Your task to perform on an android device: Reply to the last email I received with 'Honestly, I didn't care much for the first season, so I didn't bother with the second.' Image 0: 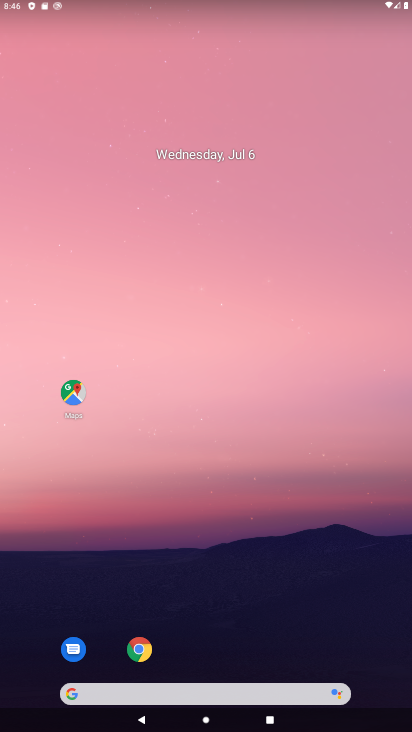
Step 0: drag from (319, 590) to (139, 33)
Your task to perform on an android device: Reply to the last email I received with 'Honestly, I didn't care much for the first season, so I didn't bother with the second.' Image 1: 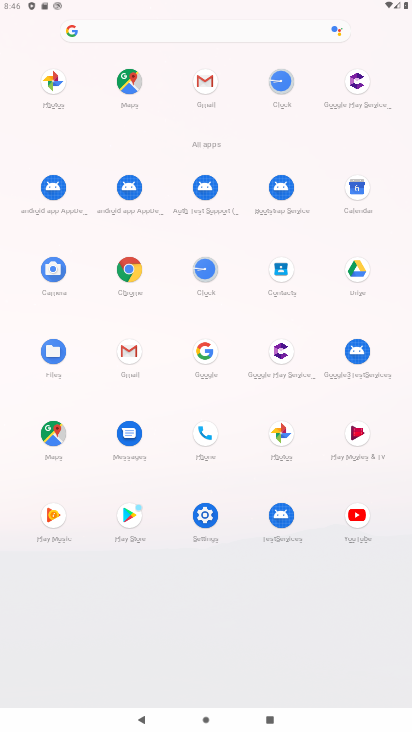
Step 1: click (201, 87)
Your task to perform on an android device: Reply to the last email I received with 'Honestly, I didn't care much for the first season, so I didn't bother with the second.' Image 2: 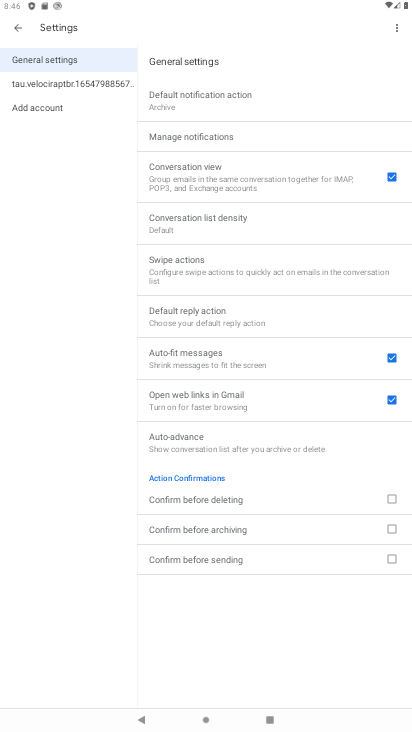
Step 2: click (17, 28)
Your task to perform on an android device: Reply to the last email I received with 'Honestly, I didn't care much for the first season, so I didn't bother with the second.' Image 3: 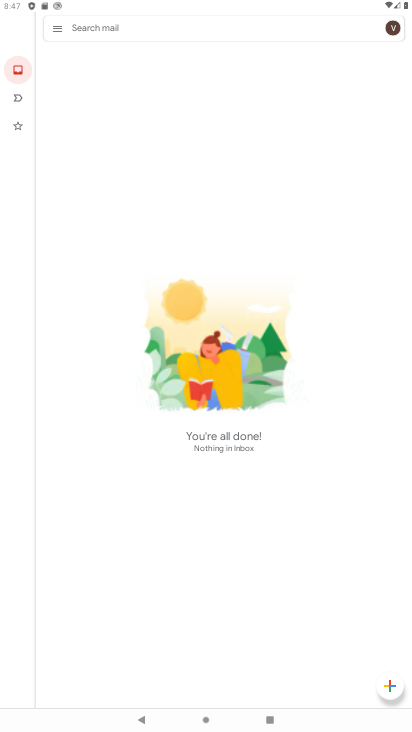
Step 3: task complete